Your task to perform on an android device: change timer sound Image 0: 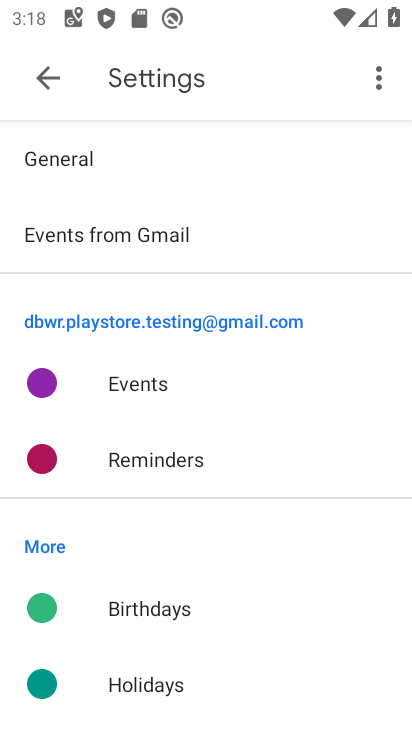
Step 0: press home button
Your task to perform on an android device: change timer sound Image 1: 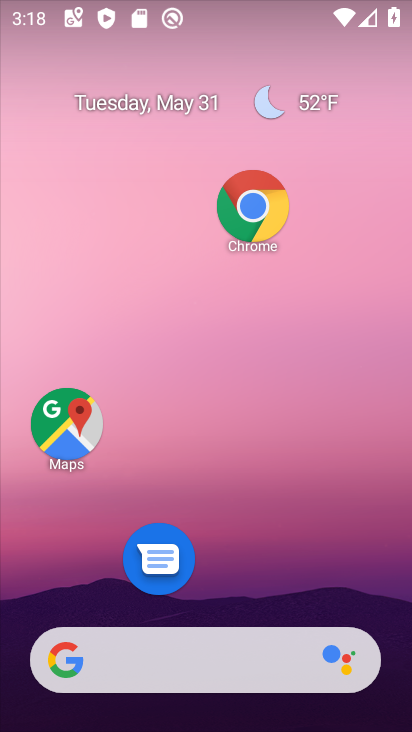
Step 1: drag from (192, 586) to (208, 184)
Your task to perform on an android device: change timer sound Image 2: 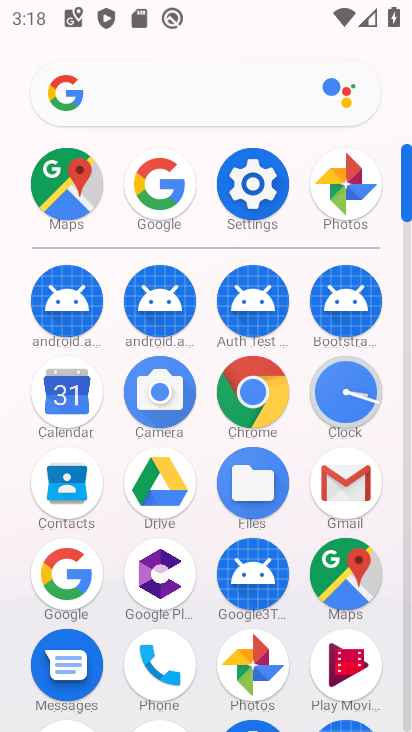
Step 2: drag from (190, 448) to (226, 252)
Your task to perform on an android device: change timer sound Image 3: 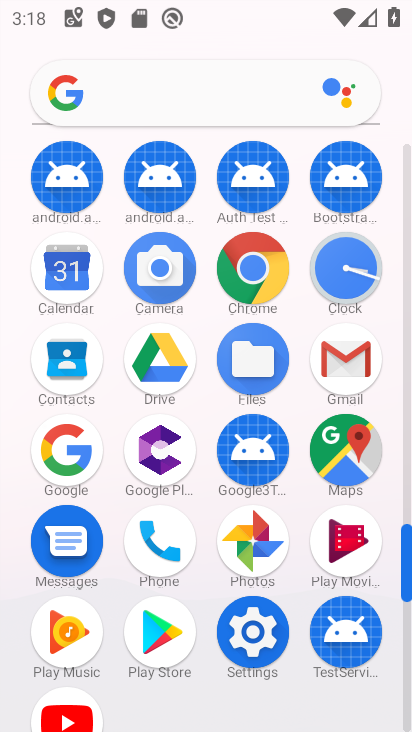
Step 3: click (334, 268)
Your task to perform on an android device: change timer sound Image 4: 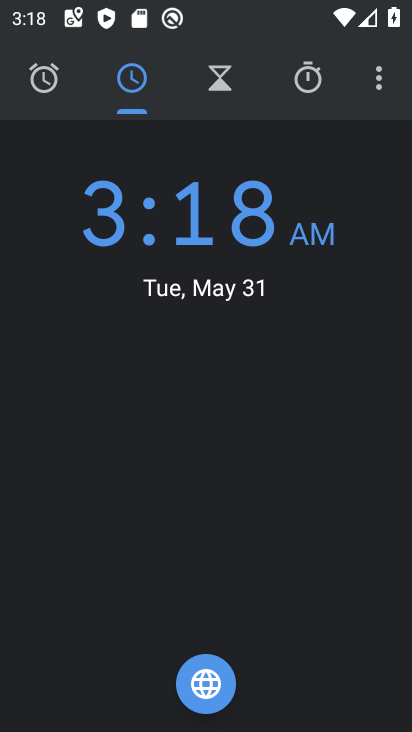
Step 4: click (379, 87)
Your task to perform on an android device: change timer sound Image 5: 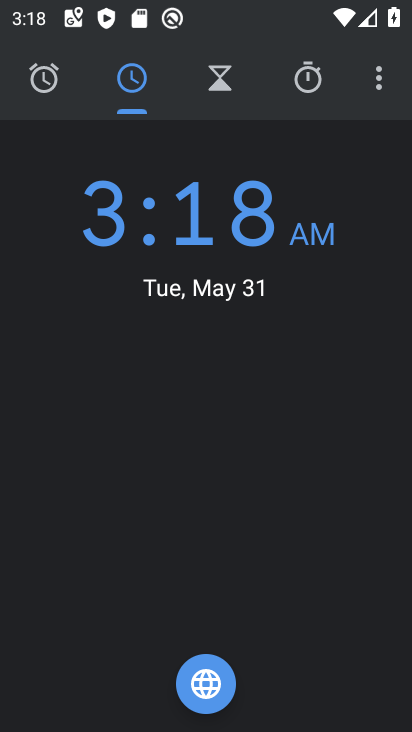
Step 5: click (378, 80)
Your task to perform on an android device: change timer sound Image 6: 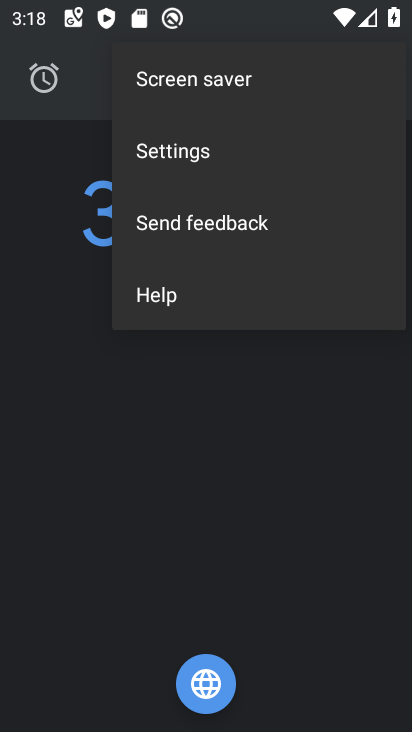
Step 6: click (182, 162)
Your task to perform on an android device: change timer sound Image 7: 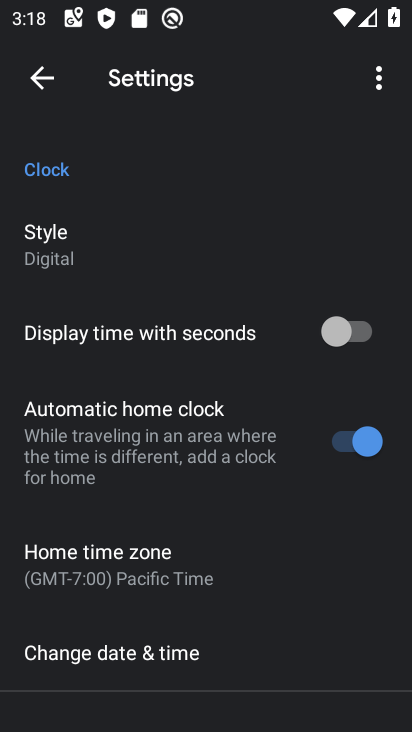
Step 7: drag from (145, 591) to (193, 196)
Your task to perform on an android device: change timer sound Image 8: 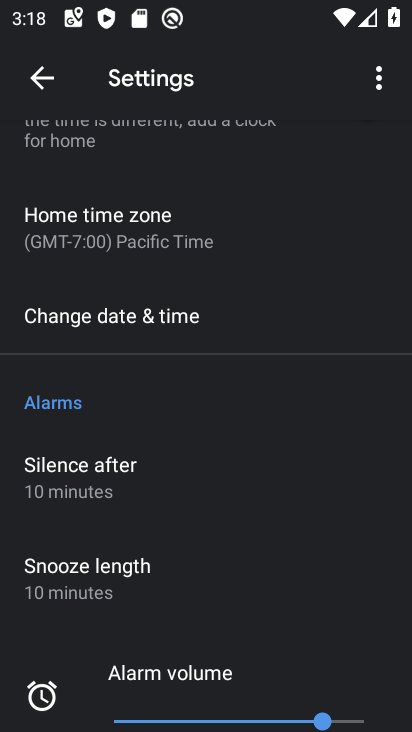
Step 8: drag from (175, 531) to (276, 192)
Your task to perform on an android device: change timer sound Image 9: 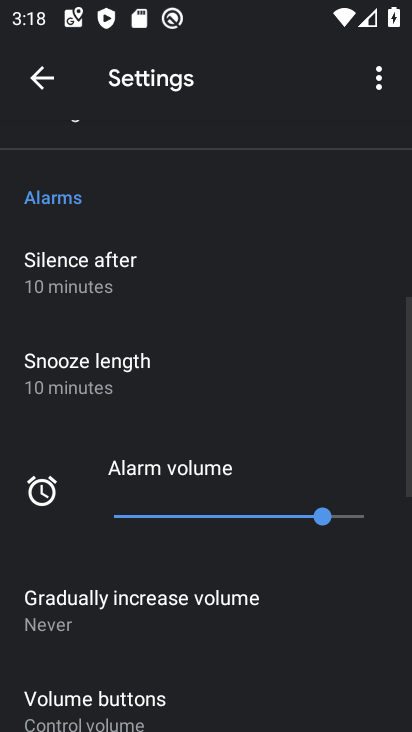
Step 9: drag from (235, 602) to (275, 298)
Your task to perform on an android device: change timer sound Image 10: 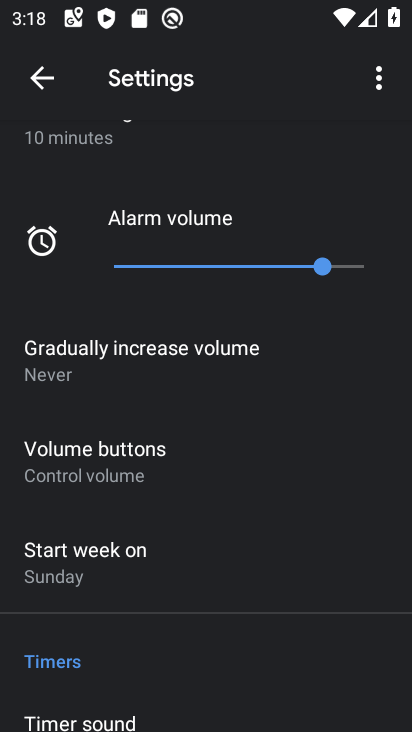
Step 10: drag from (235, 574) to (261, 349)
Your task to perform on an android device: change timer sound Image 11: 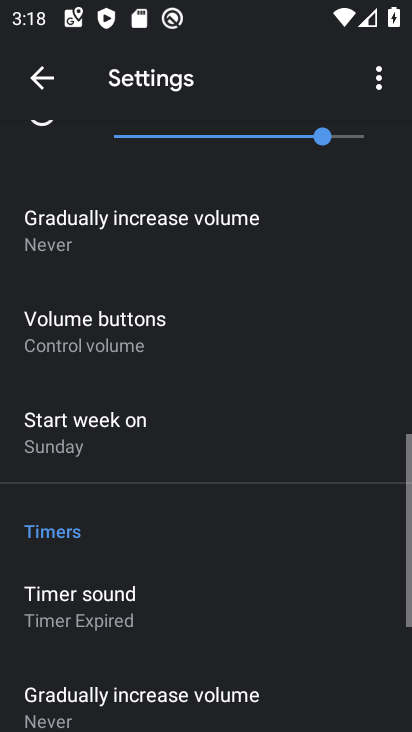
Step 11: drag from (231, 603) to (256, 354)
Your task to perform on an android device: change timer sound Image 12: 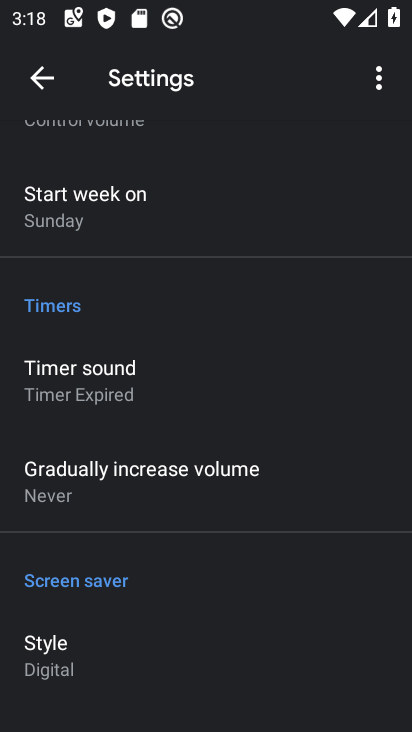
Step 12: click (211, 388)
Your task to perform on an android device: change timer sound Image 13: 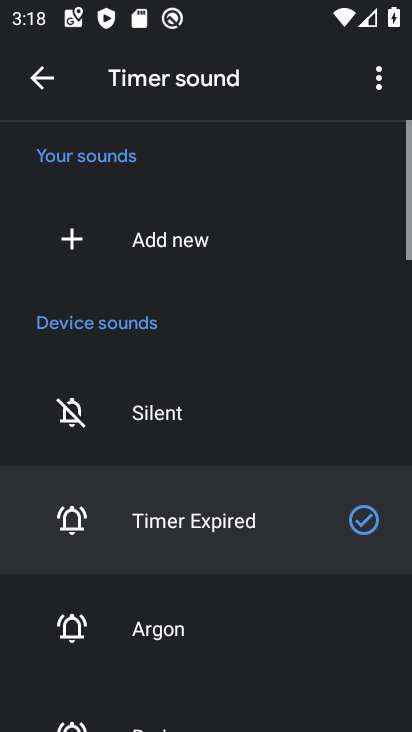
Step 13: click (201, 627)
Your task to perform on an android device: change timer sound Image 14: 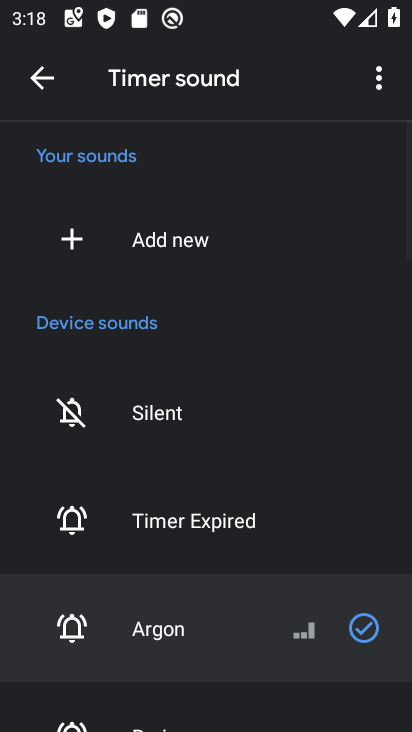
Step 14: task complete